Your task to perform on an android device: turn smart compose on in the gmail app Image 0: 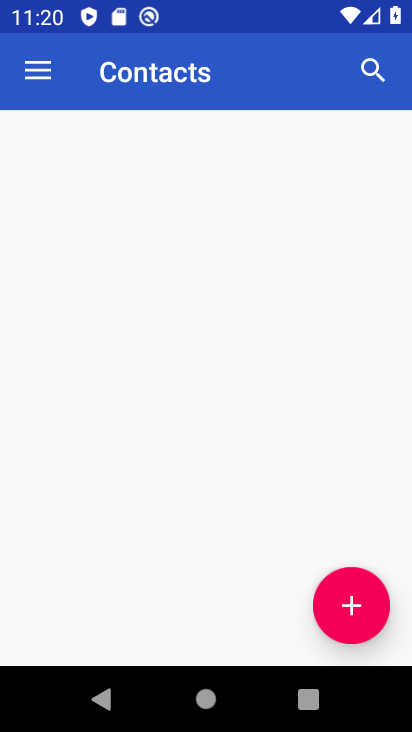
Step 0: drag from (305, 665) to (371, 125)
Your task to perform on an android device: turn smart compose on in the gmail app Image 1: 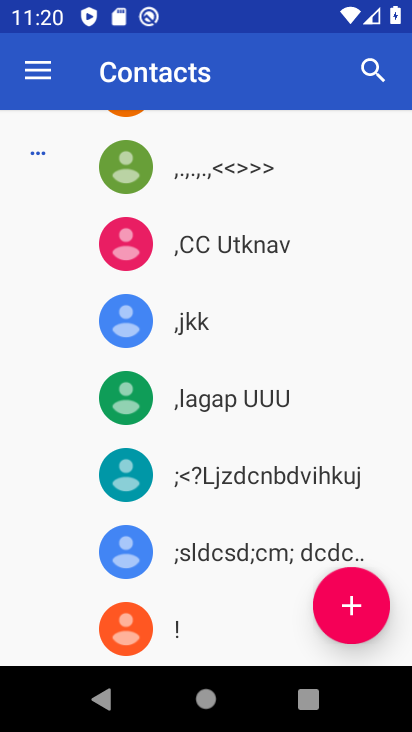
Step 1: press home button
Your task to perform on an android device: turn smart compose on in the gmail app Image 2: 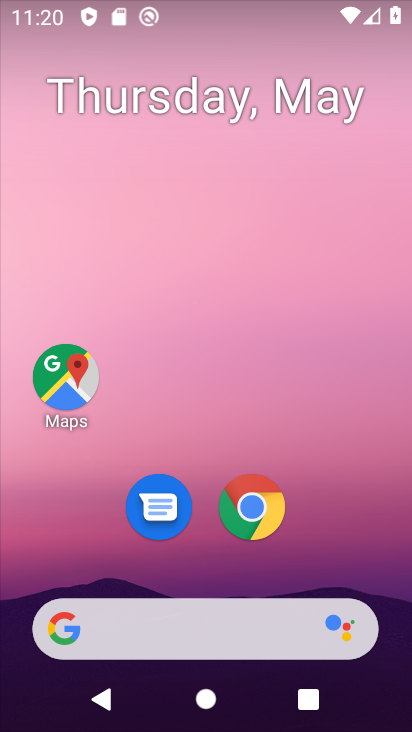
Step 2: drag from (239, 618) to (247, 180)
Your task to perform on an android device: turn smart compose on in the gmail app Image 3: 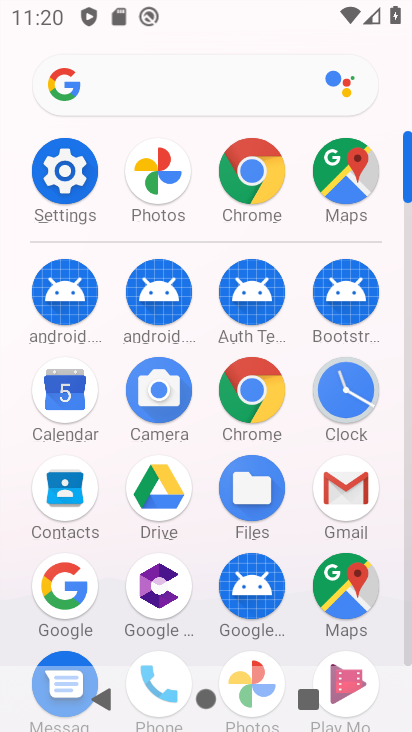
Step 3: click (83, 193)
Your task to perform on an android device: turn smart compose on in the gmail app Image 4: 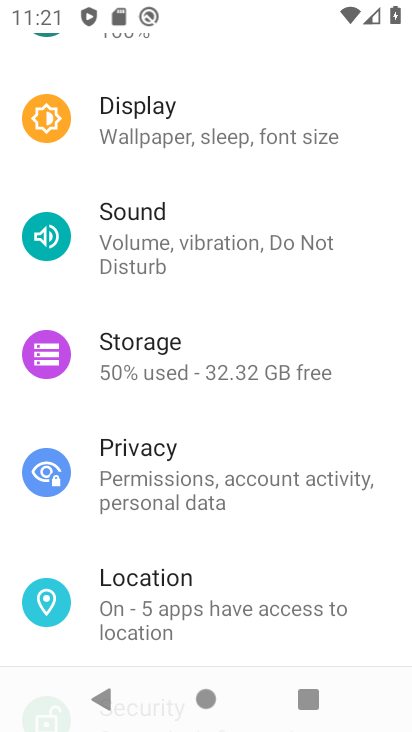
Step 4: drag from (206, 582) to (261, 301)
Your task to perform on an android device: turn smart compose on in the gmail app Image 5: 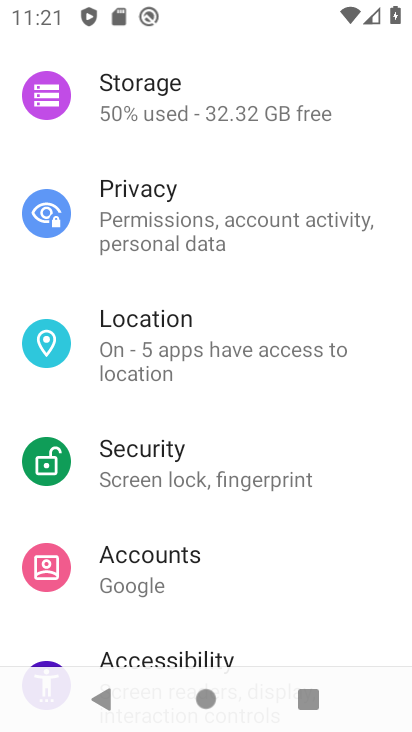
Step 5: press home button
Your task to perform on an android device: turn smart compose on in the gmail app Image 6: 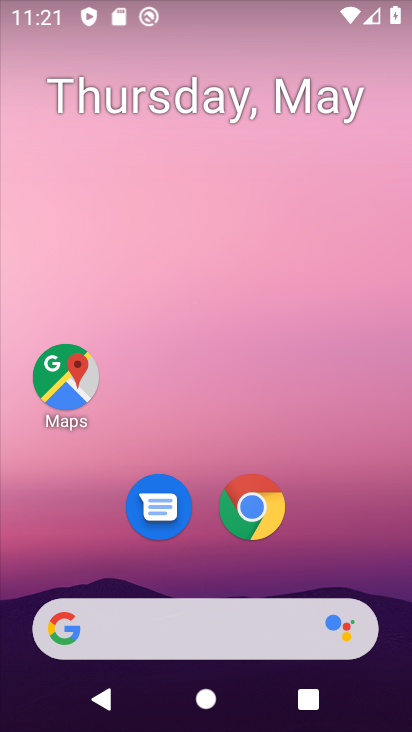
Step 6: drag from (246, 642) to (317, 141)
Your task to perform on an android device: turn smart compose on in the gmail app Image 7: 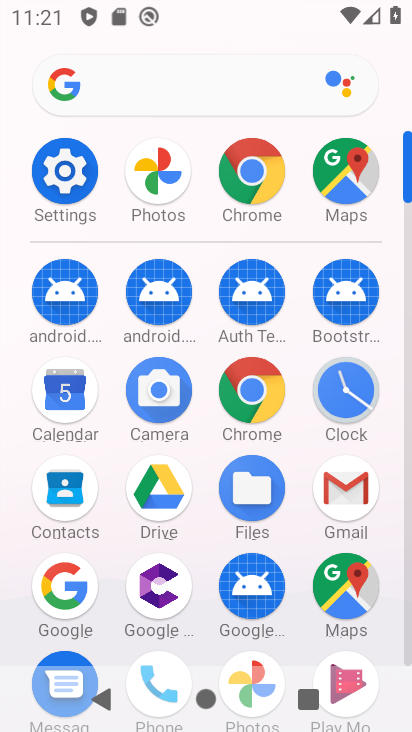
Step 7: click (358, 495)
Your task to perform on an android device: turn smart compose on in the gmail app Image 8: 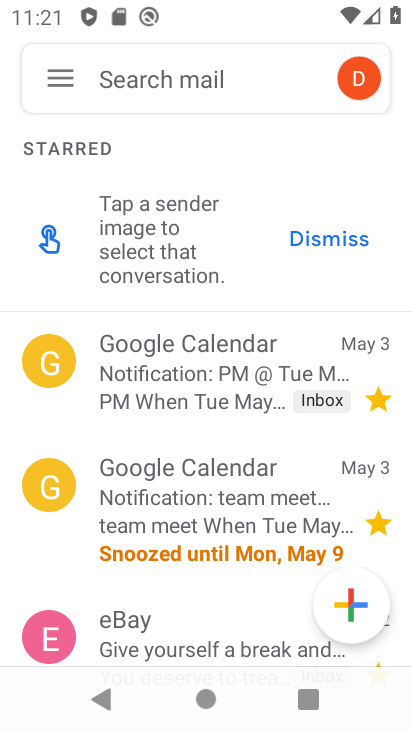
Step 8: click (70, 77)
Your task to perform on an android device: turn smart compose on in the gmail app Image 9: 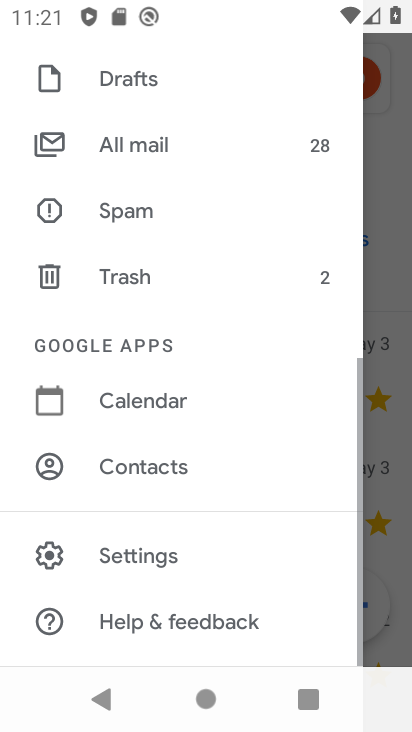
Step 9: drag from (130, 520) to (237, 69)
Your task to perform on an android device: turn smart compose on in the gmail app Image 10: 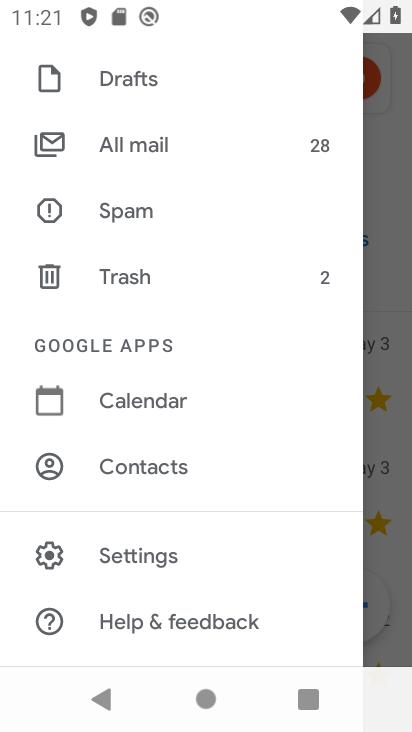
Step 10: click (164, 560)
Your task to perform on an android device: turn smart compose on in the gmail app Image 11: 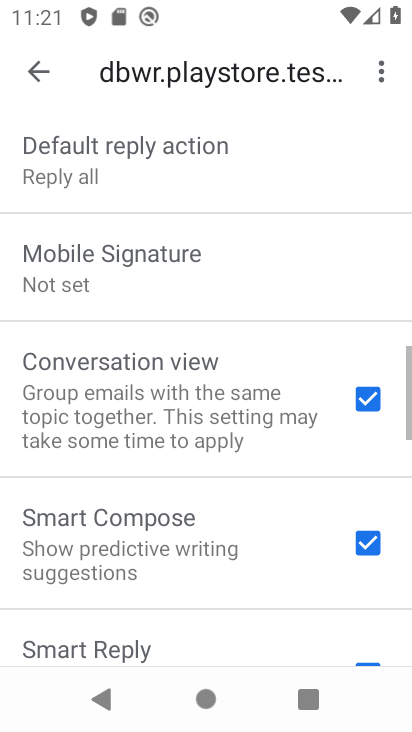
Step 11: task complete